Your task to perform on an android device: turn smart compose on in the gmail app Image 0: 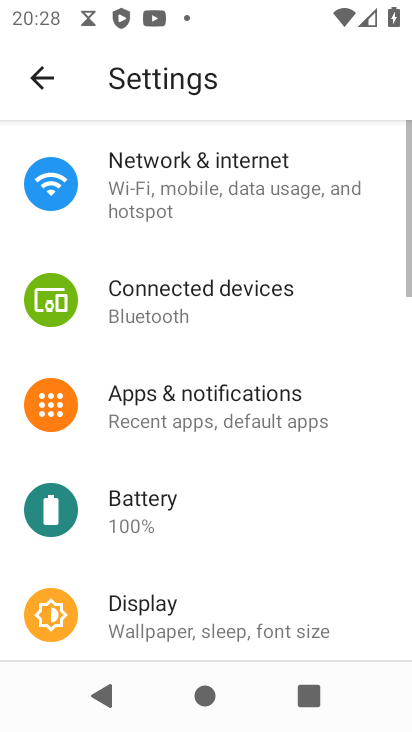
Step 0: press home button
Your task to perform on an android device: turn smart compose on in the gmail app Image 1: 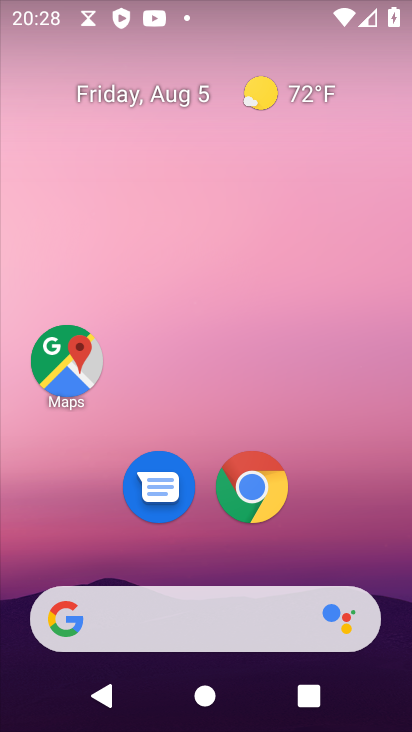
Step 1: drag from (174, 615) to (250, 53)
Your task to perform on an android device: turn smart compose on in the gmail app Image 2: 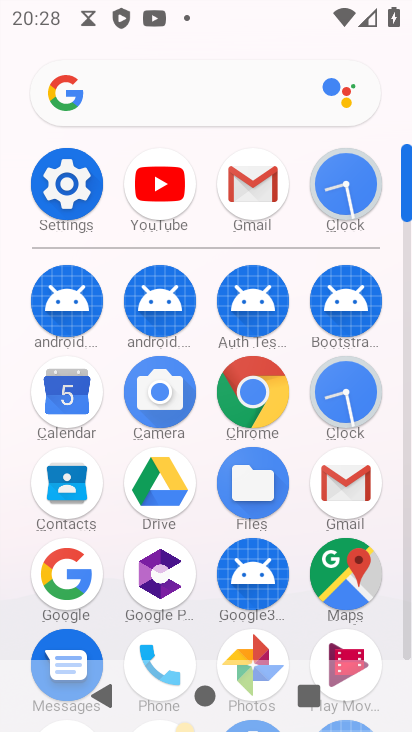
Step 2: click (250, 193)
Your task to perform on an android device: turn smart compose on in the gmail app Image 3: 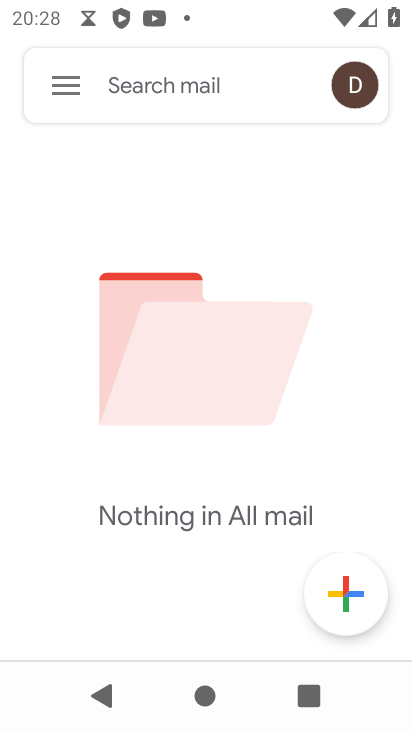
Step 3: click (60, 86)
Your task to perform on an android device: turn smart compose on in the gmail app Image 4: 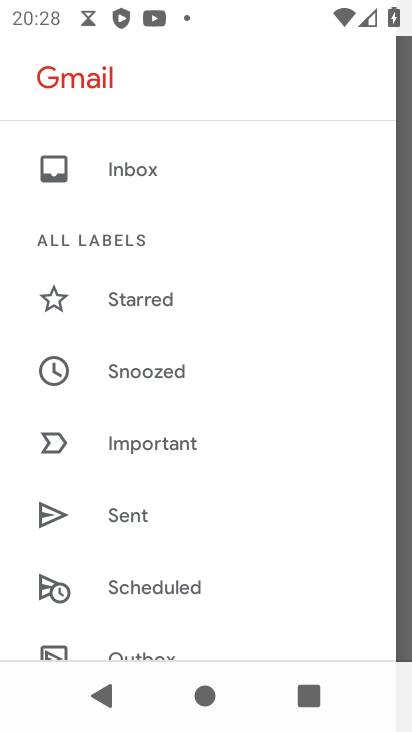
Step 4: drag from (215, 577) to (256, 179)
Your task to perform on an android device: turn smart compose on in the gmail app Image 5: 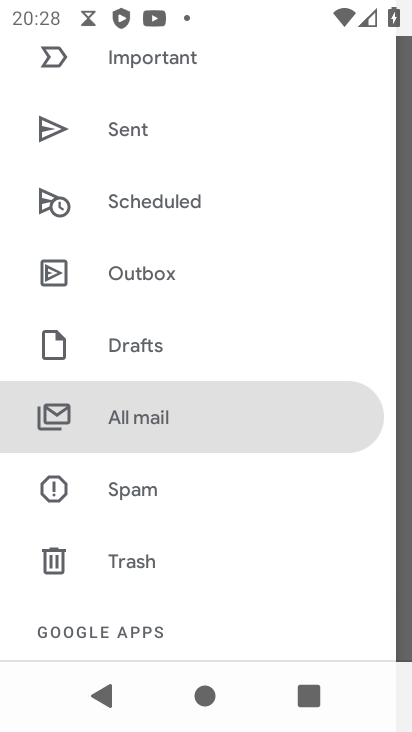
Step 5: drag from (211, 536) to (252, 107)
Your task to perform on an android device: turn smart compose on in the gmail app Image 6: 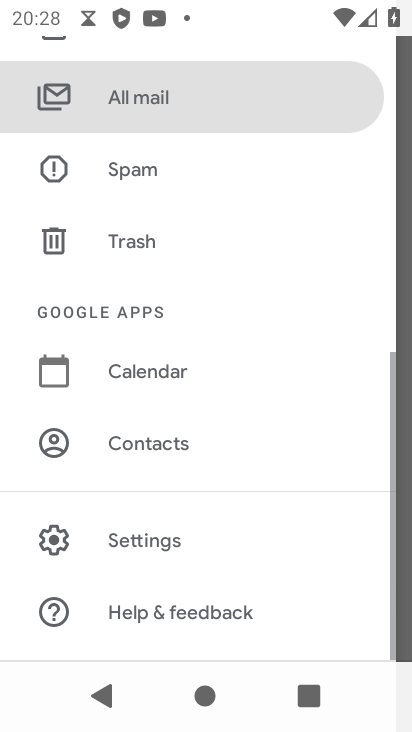
Step 6: click (165, 542)
Your task to perform on an android device: turn smart compose on in the gmail app Image 7: 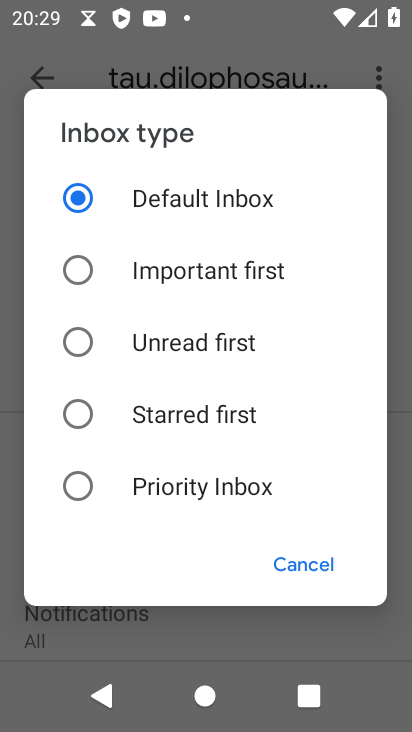
Step 7: click (309, 572)
Your task to perform on an android device: turn smart compose on in the gmail app Image 8: 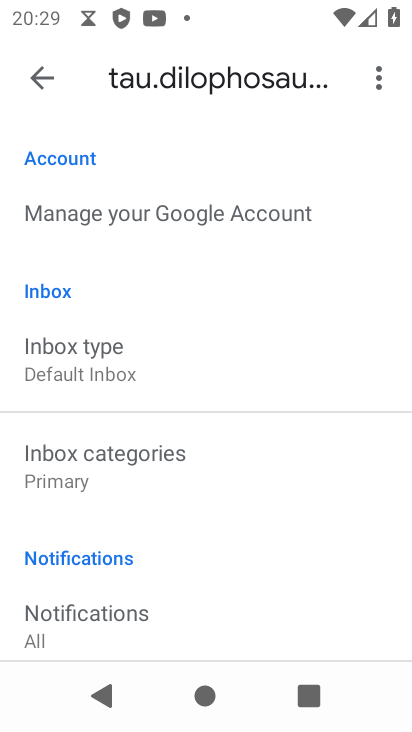
Step 8: task complete